Your task to perform on an android device: Open the phone app and click the voicemail tab. Image 0: 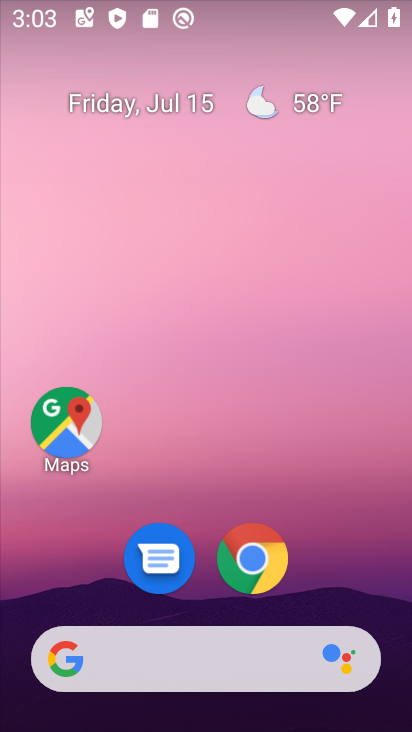
Step 0: drag from (362, 576) to (359, 121)
Your task to perform on an android device: Open the phone app and click the voicemail tab. Image 1: 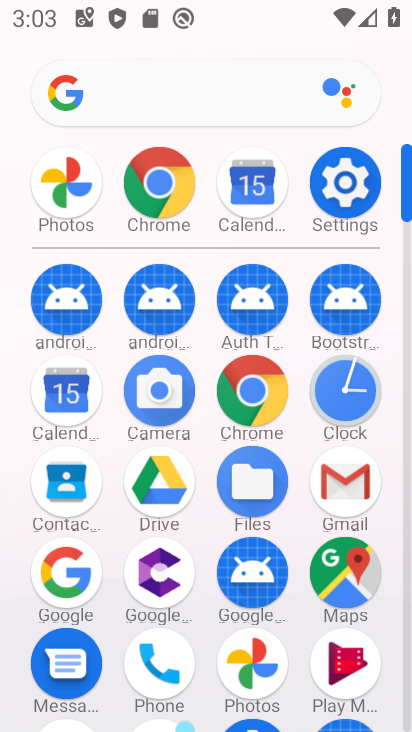
Step 1: drag from (390, 510) to (405, 238)
Your task to perform on an android device: Open the phone app and click the voicemail tab. Image 2: 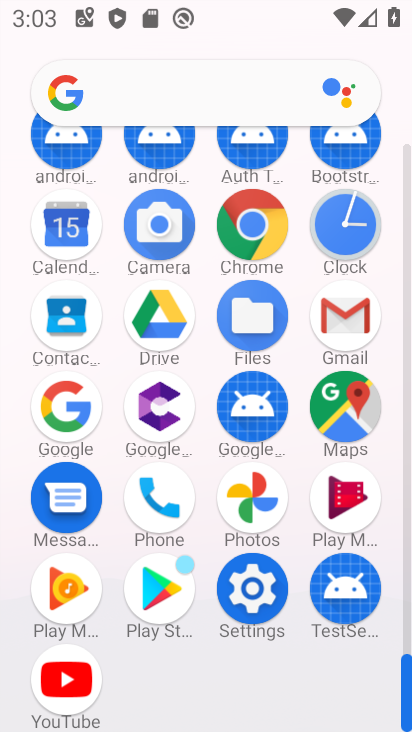
Step 2: click (148, 507)
Your task to perform on an android device: Open the phone app and click the voicemail tab. Image 3: 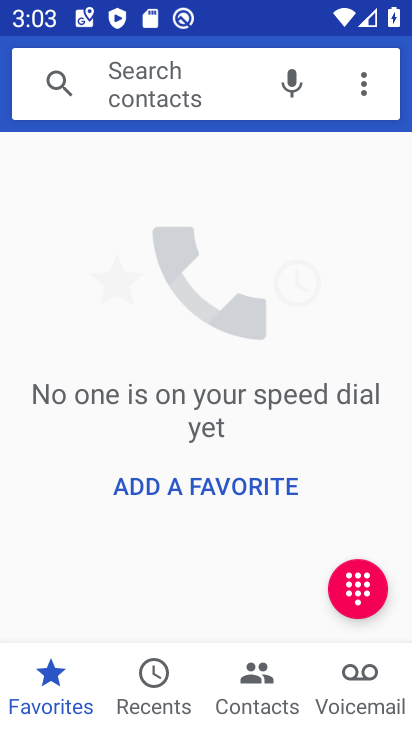
Step 3: click (362, 696)
Your task to perform on an android device: Open the phone app and click the voicemail tab. Image 4: 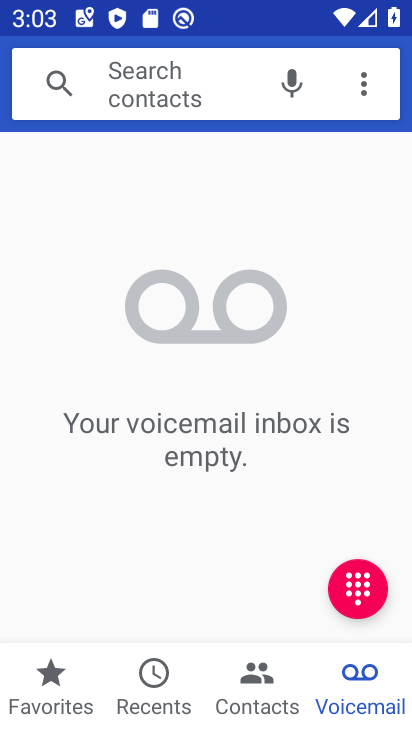
Step 4: task complete